Your task to perform on an android device: Open eBay Image 0: 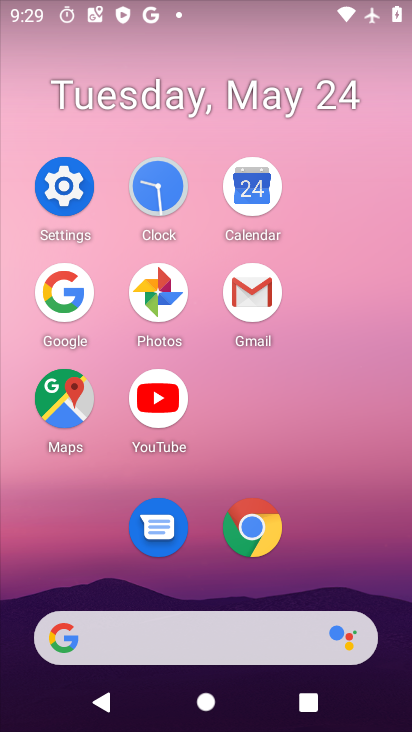
Step 0: click (251, 566)
Your task to perform on an android device: Open eBay Image 1: 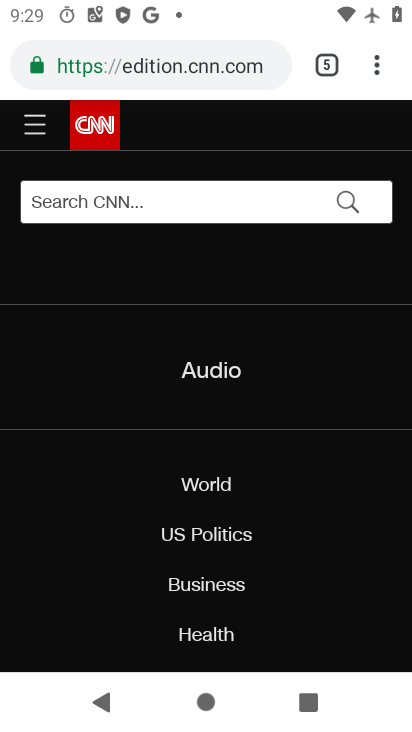
Step 1: click (320, 75)
Your task to perform on an android device: Open eBay Image 2: 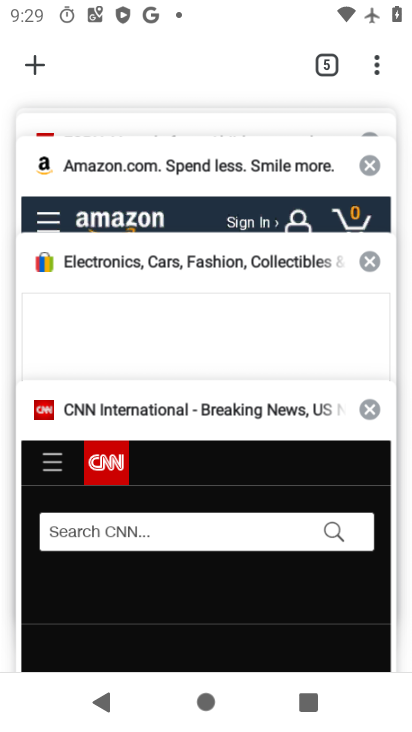
Step 2: click (211, 289)
Your task to perform on an android device: Open eBay Image 3: 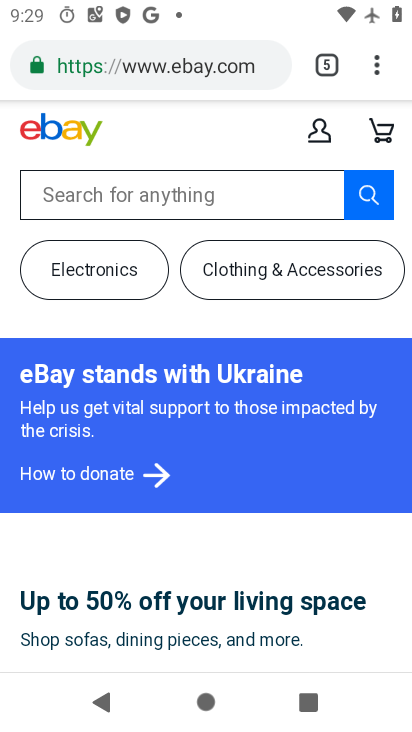
Step 3: task complete